Your task to perform on an android device: toggle data saver in the chrome app Image 0: 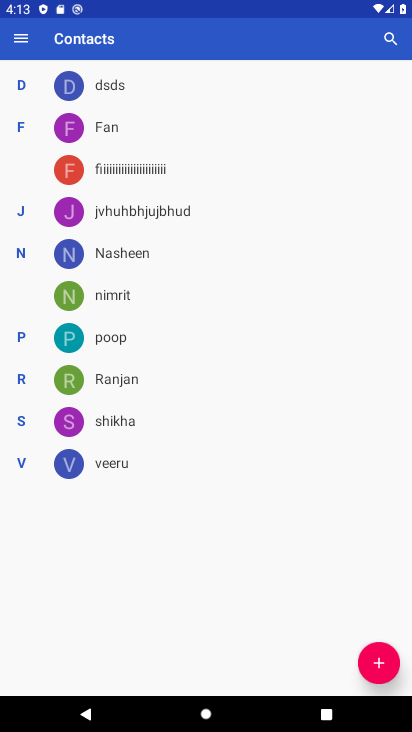
Step 0: press home button
Your task to perform on an android device: toggle data saver in the chrome app Image 1: 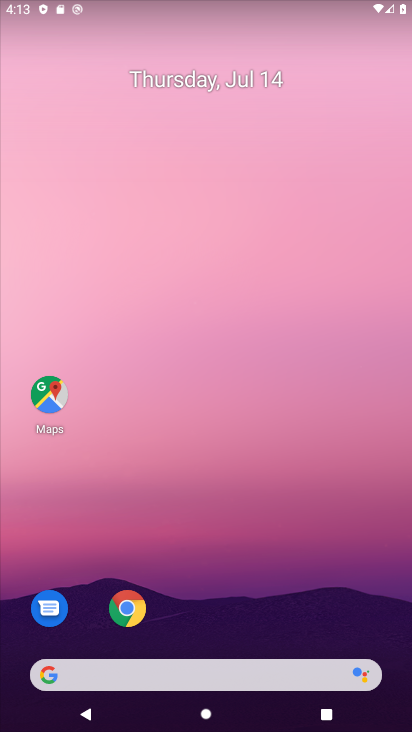
Step 1: click (118, 609)
Your task to perform on an android device: toggle data saver in the chrome app Image 2: 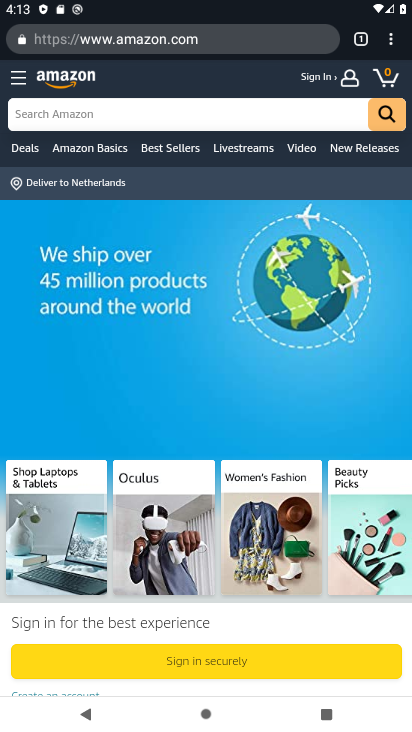
Step 2: click (391, 40)
Your task to perform on an android device: toggle data saver in the chrome app Image 3: 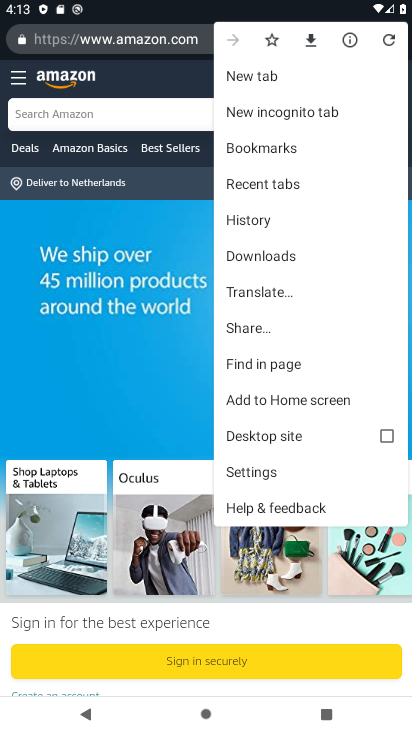
Step 3: click (274, 467)
Your task to perform on an android device: toggle data saver in the chrome app Image 4: 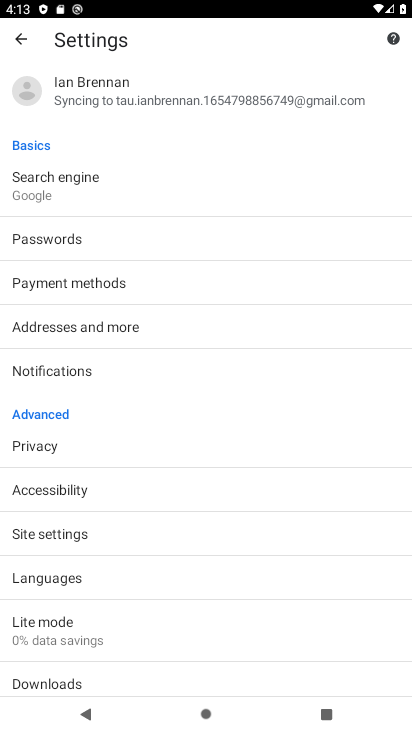
Step 4: click (76, 633)
Your task to perform on an android device: toggle data saver in the chrome app Image 5: 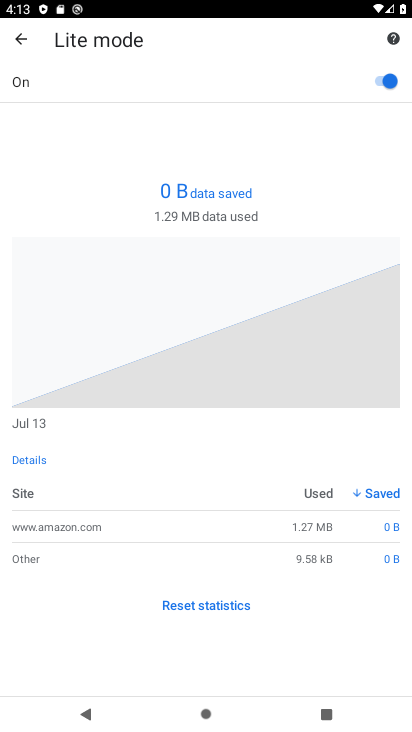
Step 5: click (9, 33)
Your task to perform on an android device: toggle data saver in the chrome app Image 6: 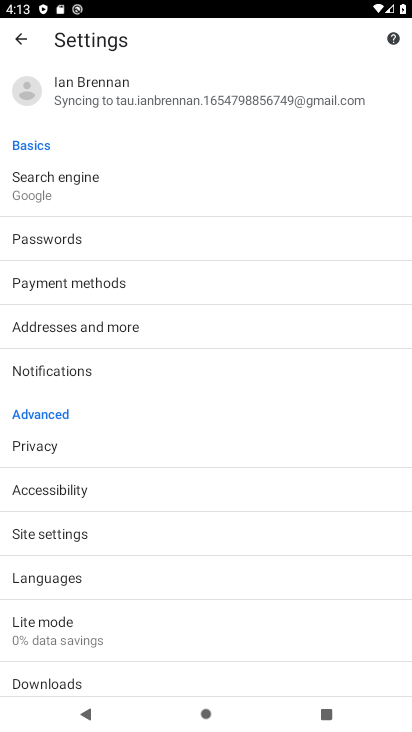
Step 6: click (110, 628)
Your task to perform on an android device: toggle data saver in the chrome app Image 7: 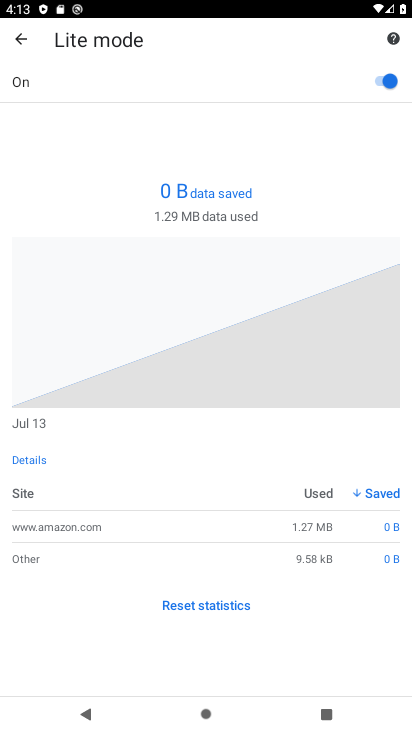
Step 7: click (384, 83)
Your task to perform on an android device: toggle data saver in the chrome app Image 8: 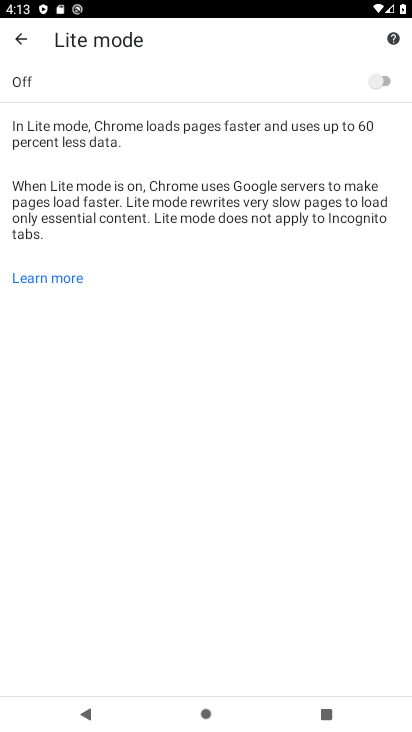
Step 8: task complete